Your task to perform on an android device: Open Google Chrome Image 0: 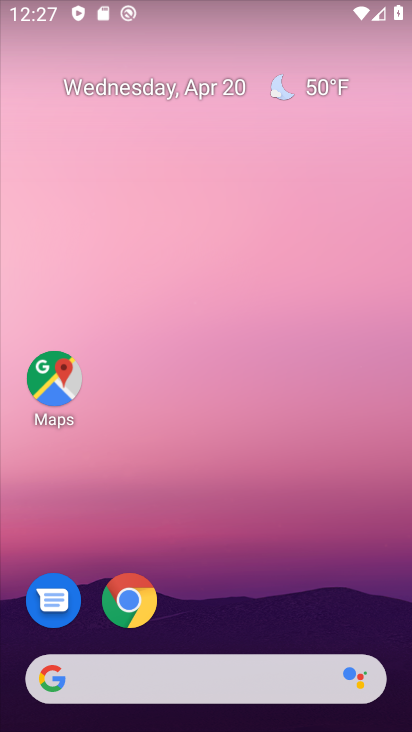
Step 0: click (135, 599)
Your task to perform on an android device: Open Google Chrome Image 1: 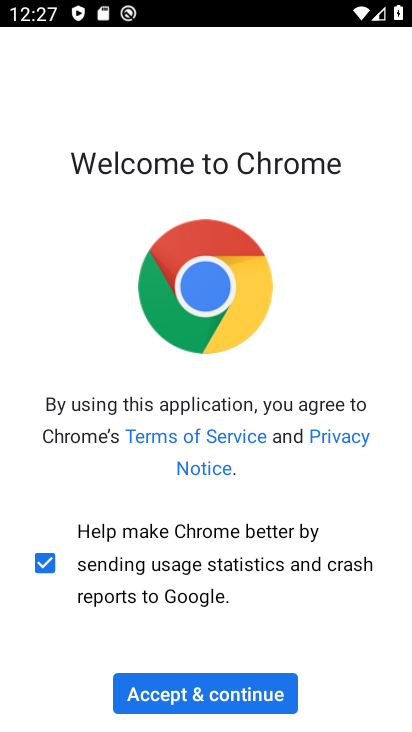
Step 1: task complete